Your task to perform on an android device: empty trash in google photos Image 0: 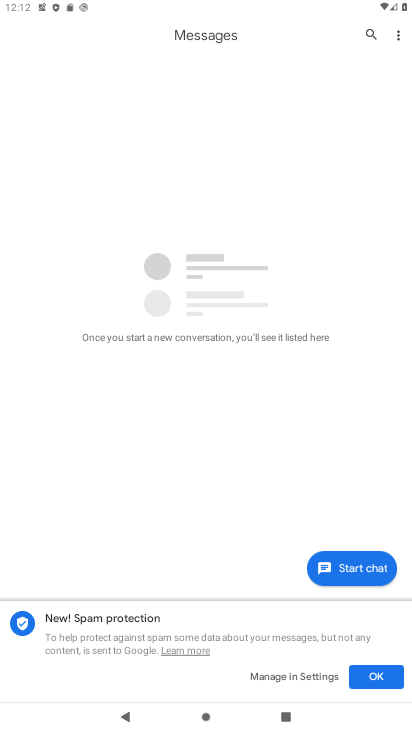
Step 0: press home button
Your task to perform on an android device: empty trash in google photos Image 1: 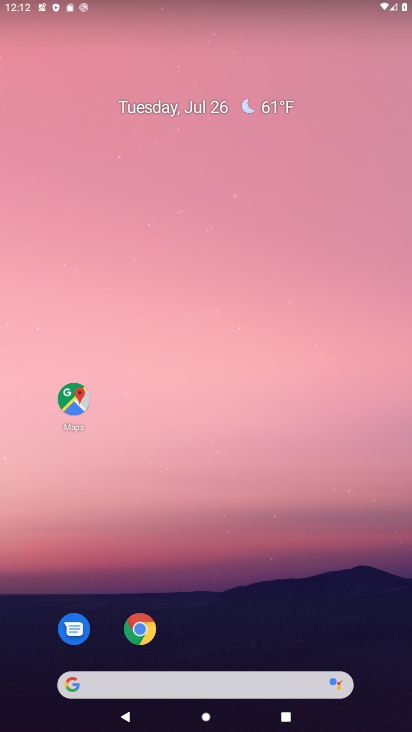
Step 1: drag from (206, 613) to (182, 149)
Your task to perform on an android device: empty trash in google photos Image 2: 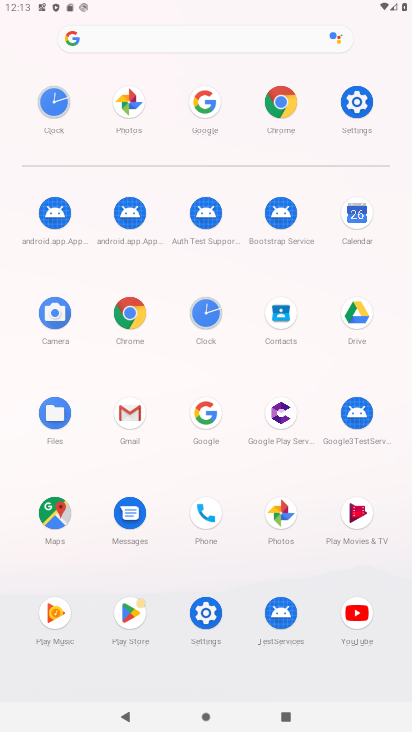
Step 2: click (131, 119)
Your task to perform on an android device: empty trash in google photos Image 3: 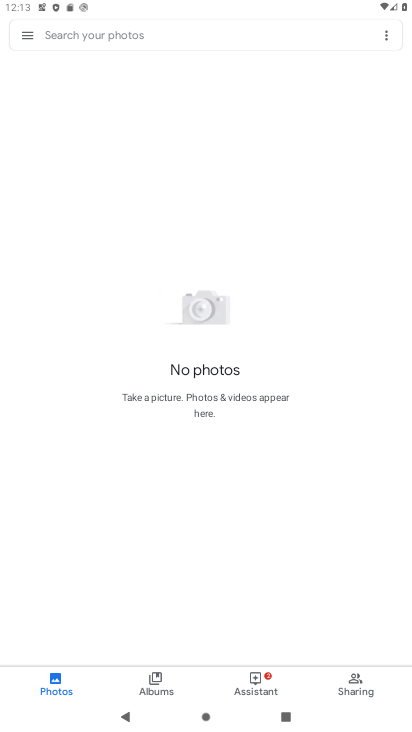
Step 3: click (17, 38)
Your task to perform on an android device: empty trash in google photos Image 4: 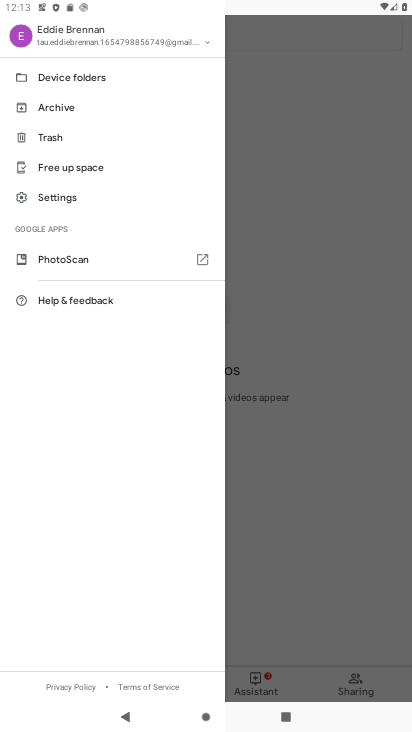
Step 4: click (276, 189)
Your task to perform on an android device: empty trash in google photos Image 5: 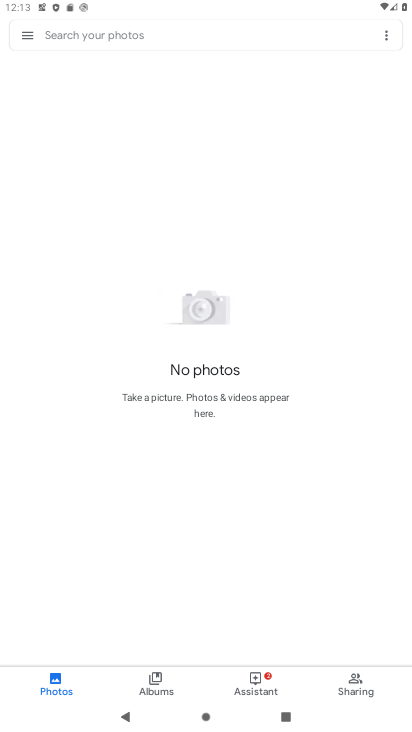
Step 5: click (30, 36)
Your task to perform on an android device: empty trash in google photos Image 6: 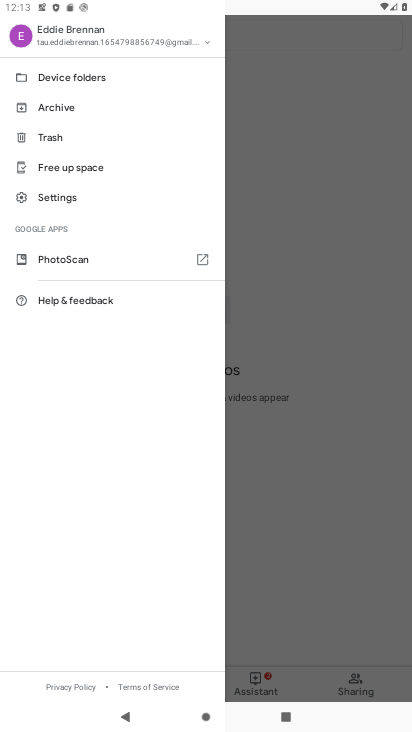
Step 6: click (60, 142)
Your task to perform on an android device: empty trash in google photos Image 7: 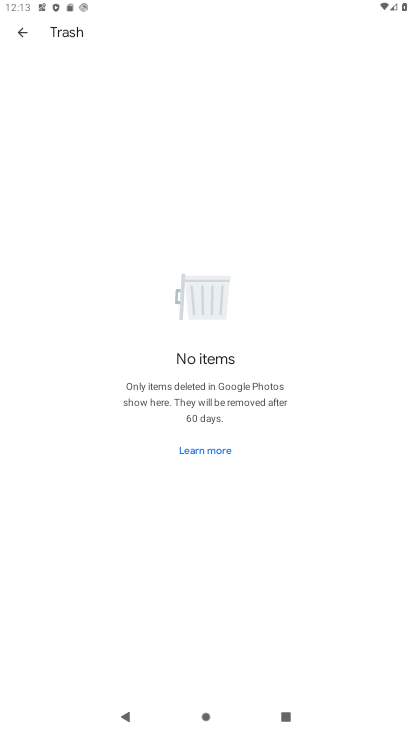
Step 7: task complete